Your task to perform on an android device: check battery use Image 0: 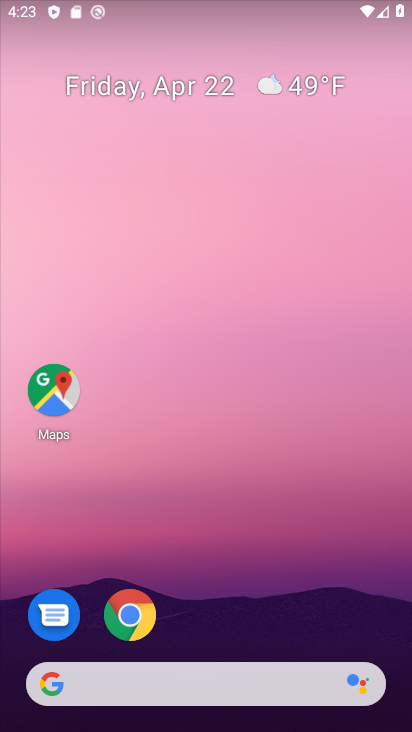
Step 0: click (233, 216)
Your task to perform on an android device: check battery use Image 1: 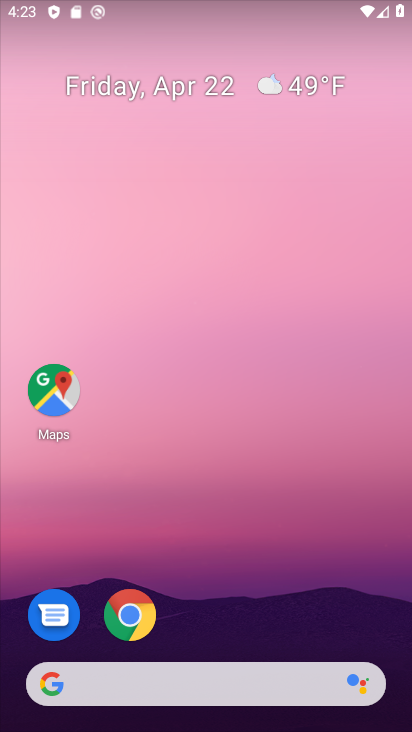
Step 1: drag from (214, 626) to (223, 212)
Your task to perform on an android device: check battery use Image 2: 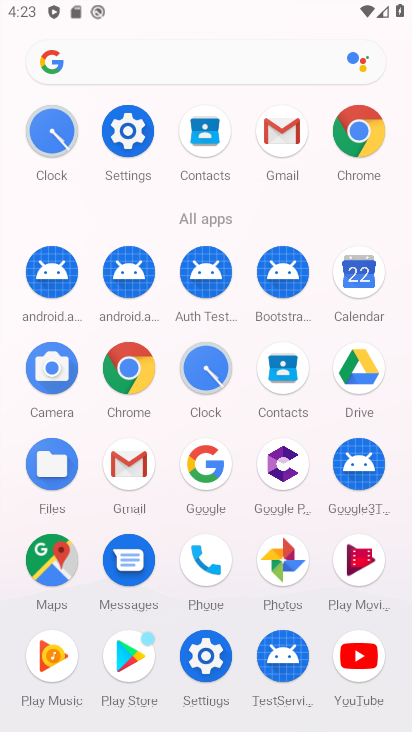
Step 2: click (126, 144)
Your task to perform on an android device: check battery use Image 3: 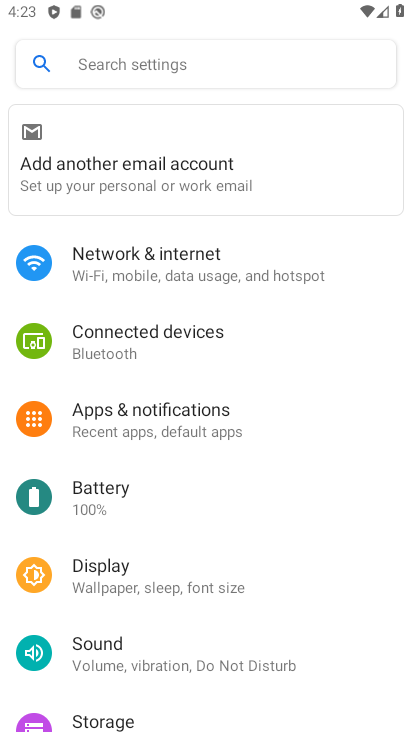
Step 3: click (93, 497)
Your task to perform on an android device: check battery use Image 4: 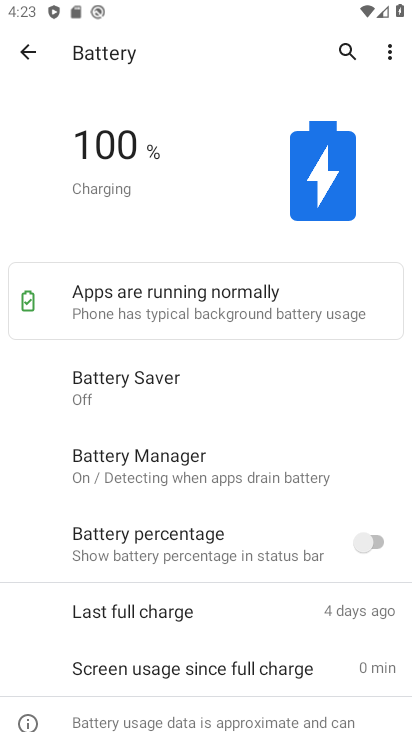
Step 4: click (391, 55)
Your task to perform on an android device: check battery use Image 5: 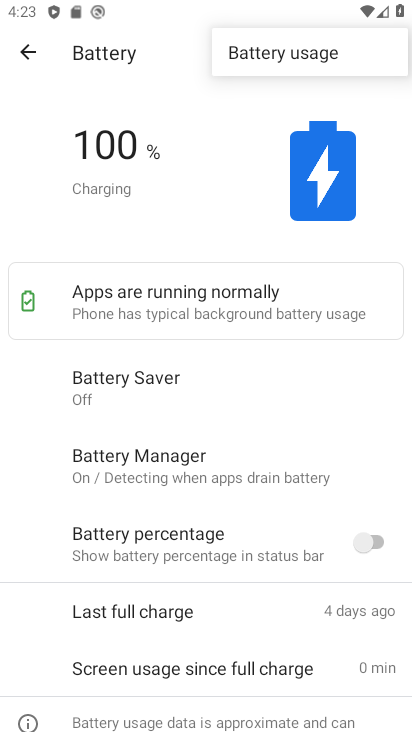
Step 5: click (298, 60)
Your task to perform on an android device: check battery use Image 6: 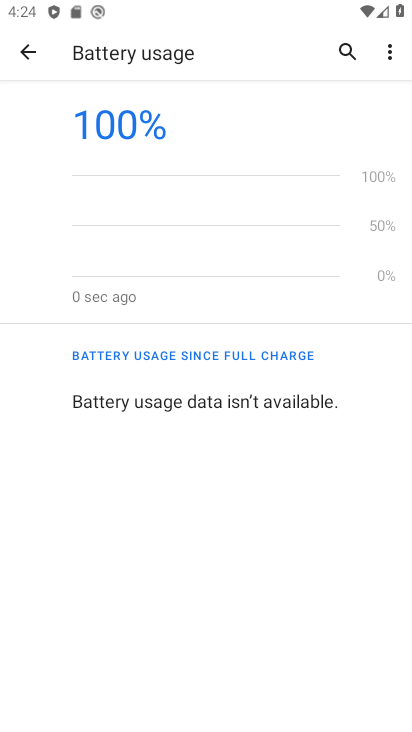
Step 6: task complete